Your task to perform on an android device: empty trash in google photos Image 0: 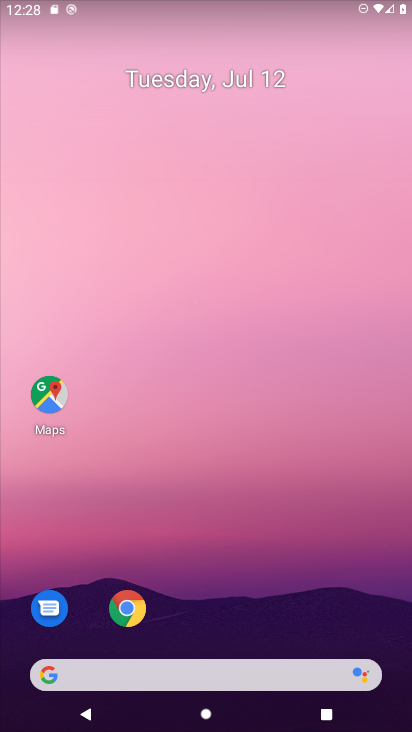
Step 0: drag from (182, 649) to (137, 105)
Your task to perform on an android device: empty trash in google photos Image 1: 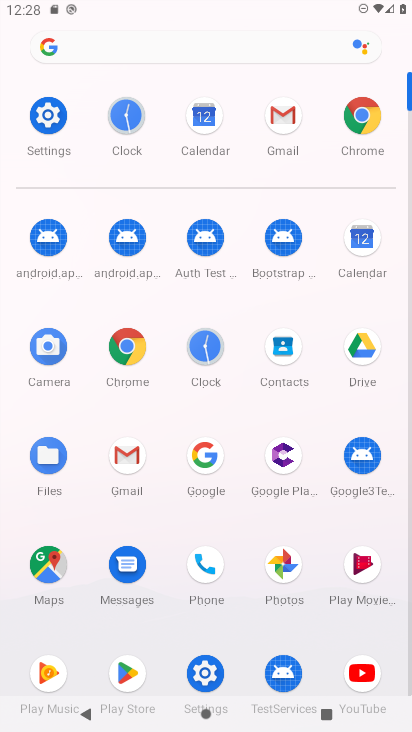
Step 1: click (279, 571)
Your task to perform on an android device: empty trash in google photos Image 2: 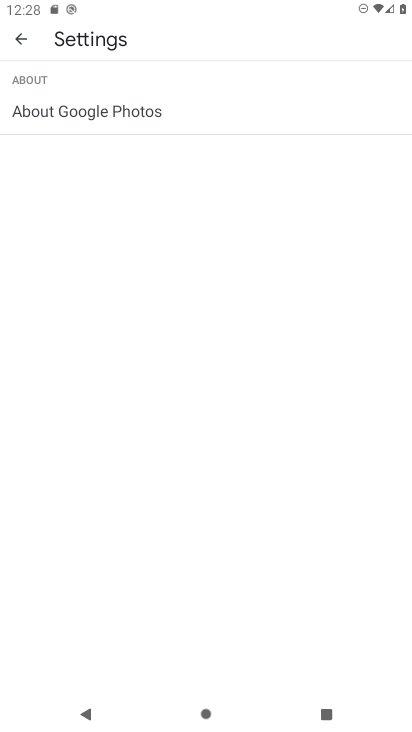
Step 2: click (26, 34)
Your task to perform on an android device: empty trash in google photos Image 3: 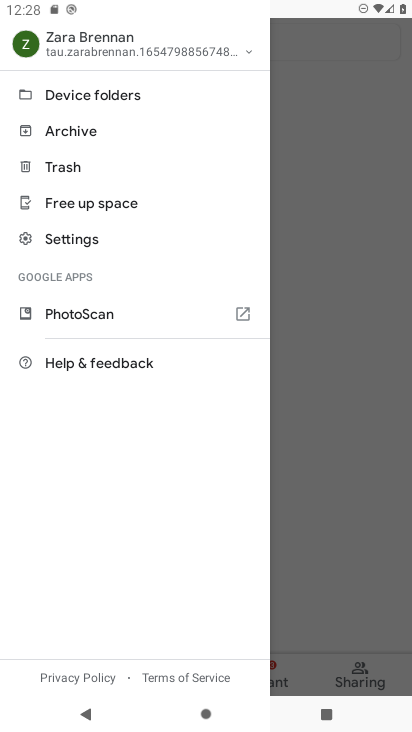
Step 3: click (89, 164)
Your task to perform on an android device: empty trash in google photos Image 4: 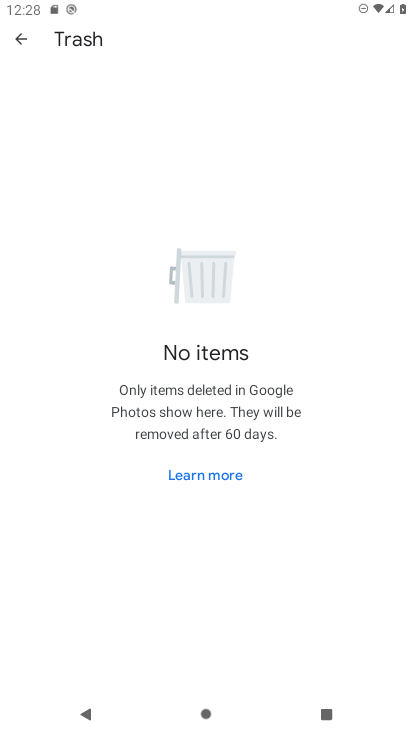
Step 4: task complete